Your task to perform on an android device: Open Youtube and go to the subscriptions tab Image 0: 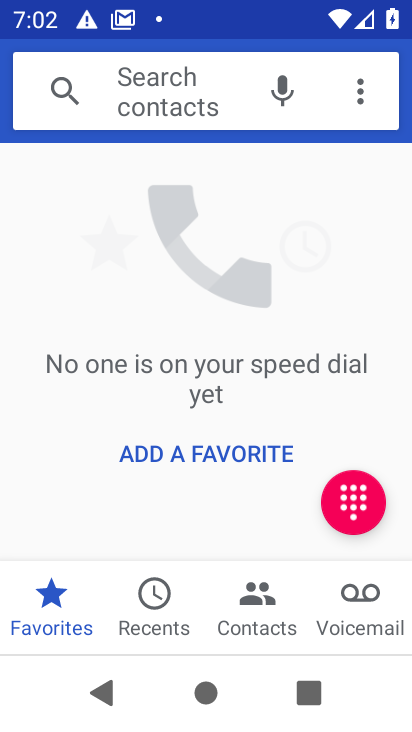
Step 0: task complete